Your task to perform on an android device: Open the map Image 0: 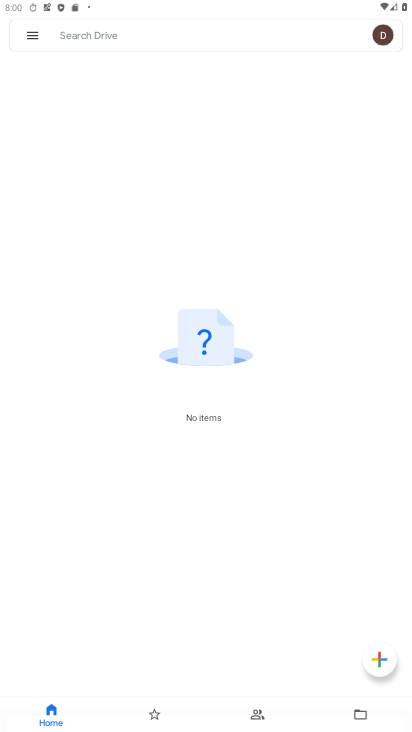
Step 0: press home button
Your task to perform on an android device: Open the map Image 1: 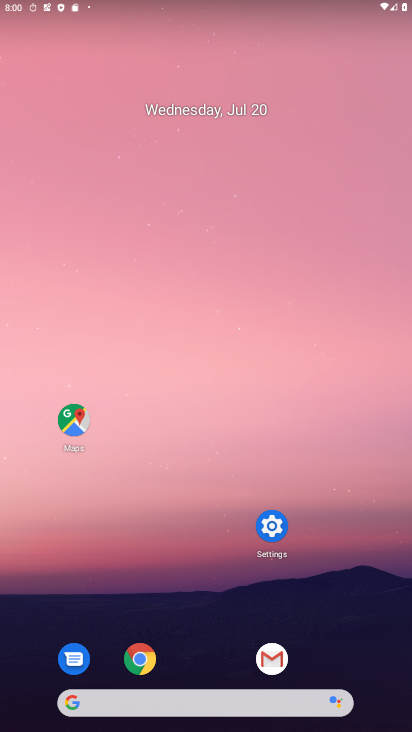
Step 1: click (76, 412)
Your task to perform on an android device: Open the map Image 2: 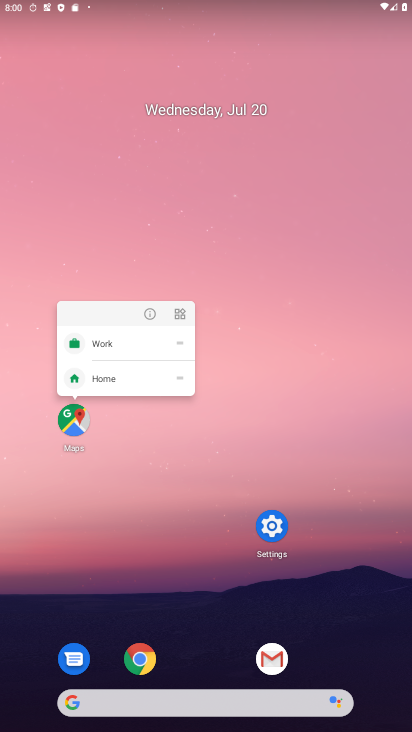
Step 2: click (64, 426)
Your task to perform on an android device: Open the map Image 3: 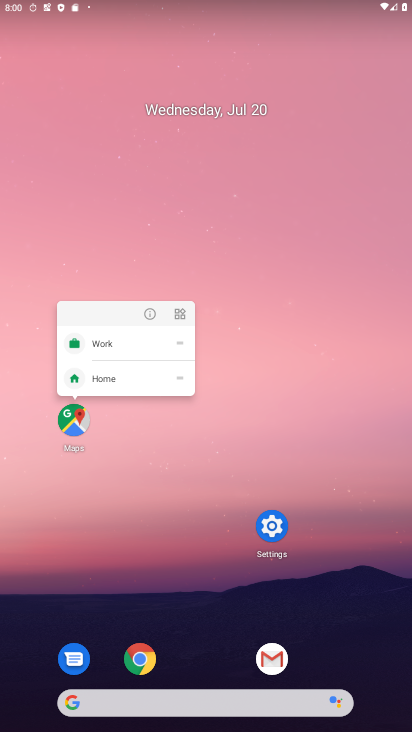
Step 3: click (75, 429)
Your task to perform on an android device: Open the map Image 4: 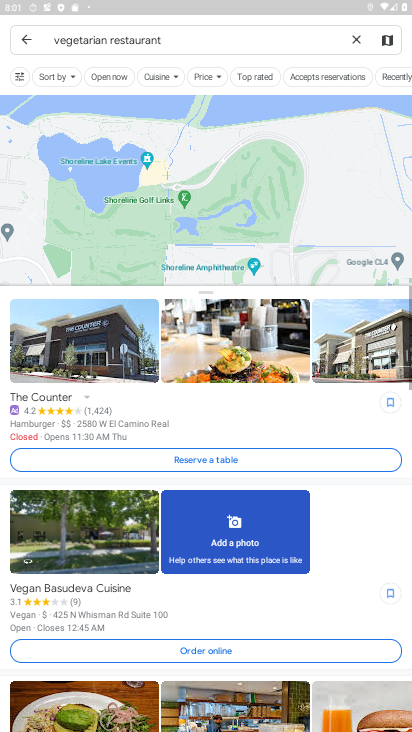
Step 4: click (24, 37)
Your task to perform on an android device: Open the map Image 5: 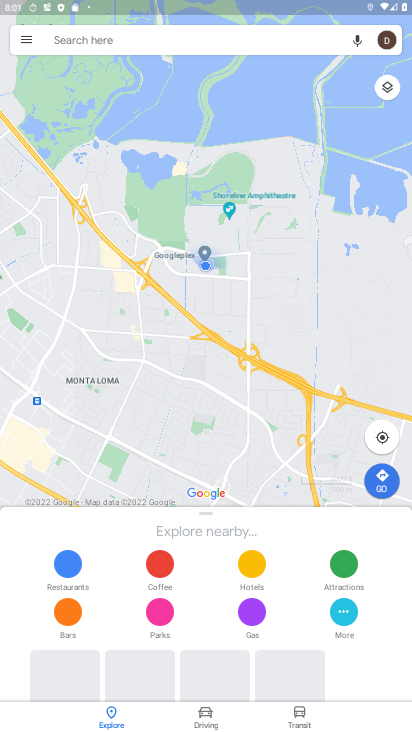
Step 5: click (385, 431)
Your task to perform on an android device: Open the map Image 6: 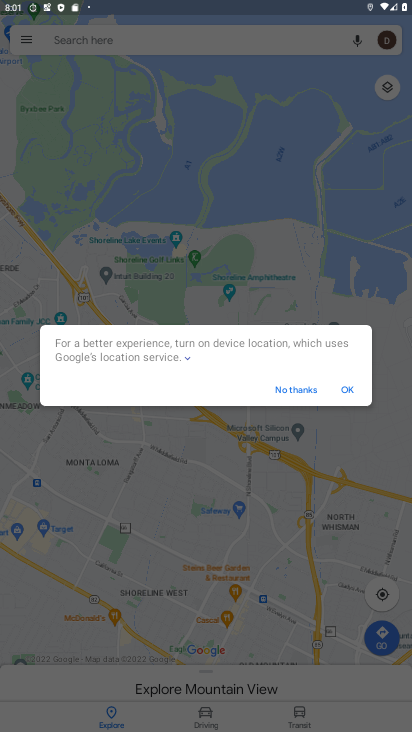
Step 6: click (296, 391)
Your task to perform on an android device: Open the map Image 7: 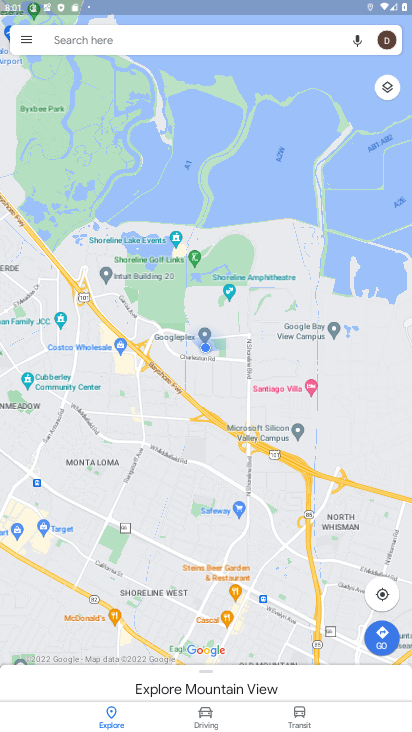
Step 7: task complete